Your task to perform on an android device: Go to notification settings Image 0: 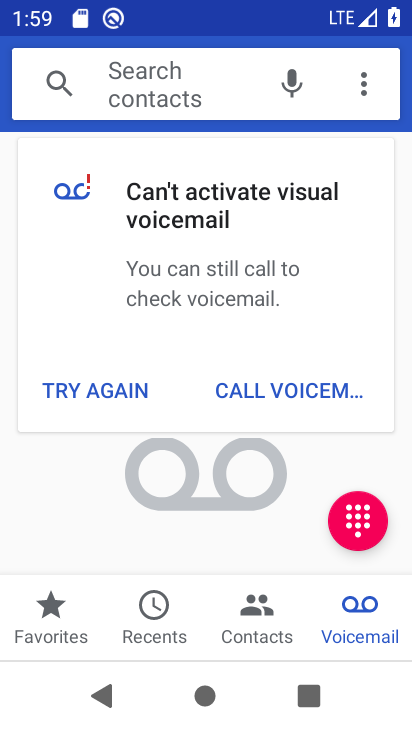
Step 0: press home button
Your task to perform on an android device: Go to notification settings Image 1: 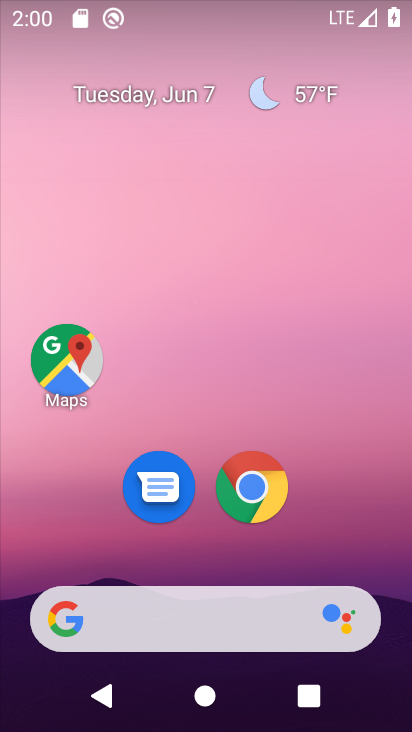
Step 1: drag from (203, 563) to (317, 12)
Your task to perform on an android device: Go to notification settings Image 2: 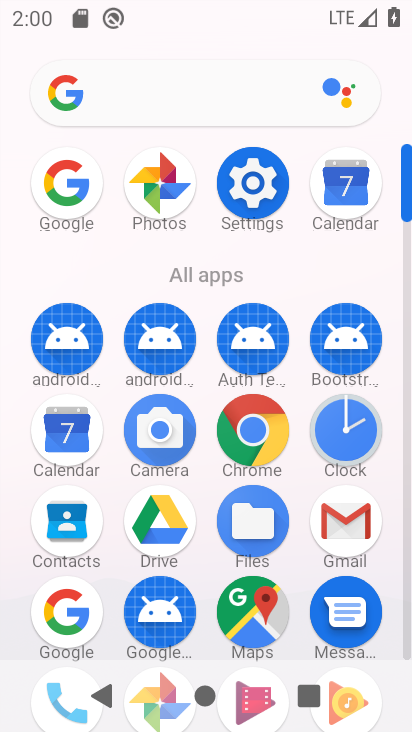
Step 2: click (261, 187)
Your task to perform on an android device: Go to notification settings Image 3: 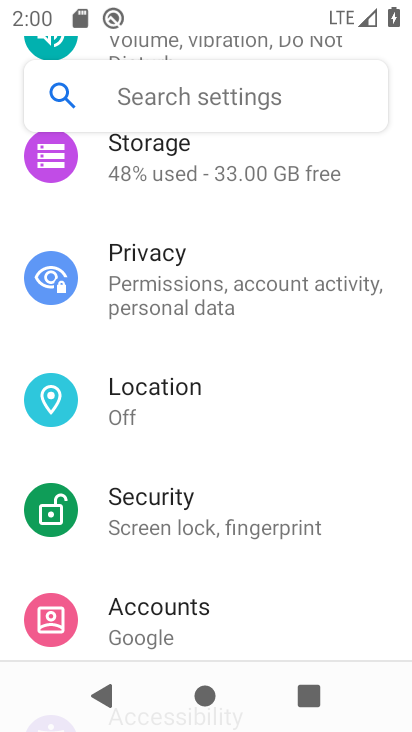
Step 3: drag from (240, 180) to (178, 726)
Your task to perform on an android device: Go to notification settings Image 4: 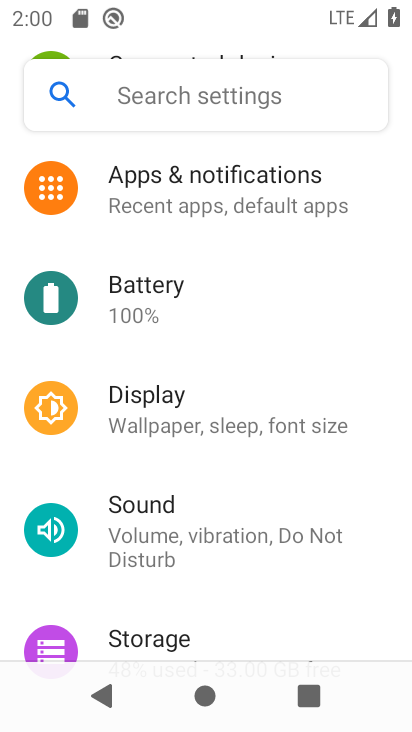
Step 4: click (165, 210)
Your task to perform on an android device: Go to notification settings Image 5: 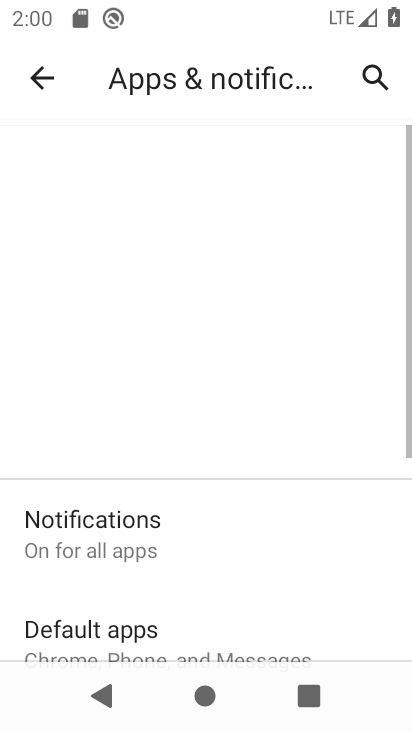
Step 5: click (172, 525)
Your task to perform on an android device: Go to notification settings Image 6: 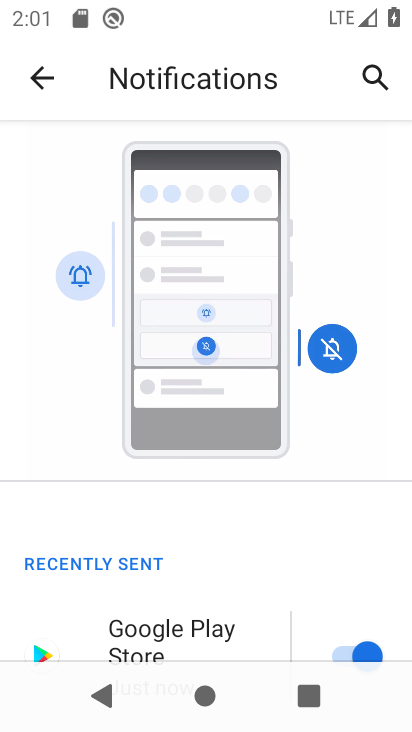
Step 6: drag from (298, 591) to (349, 46)
Your task to perform on an android device: Go to notification settings Image 7: 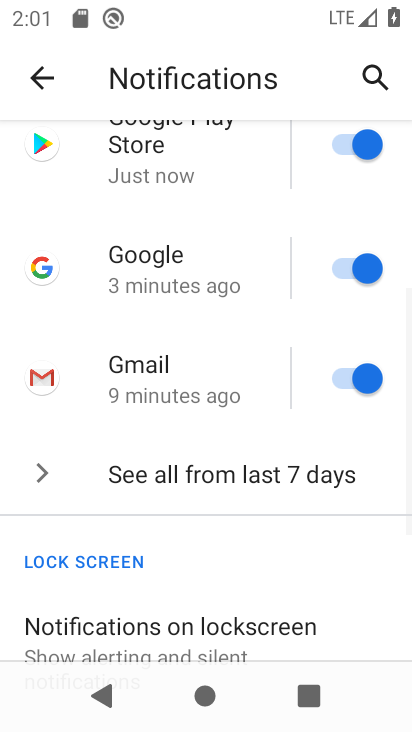
Step 7: click (179, 442)
Your task to perform on an android device: Go to notification settings Image 8: 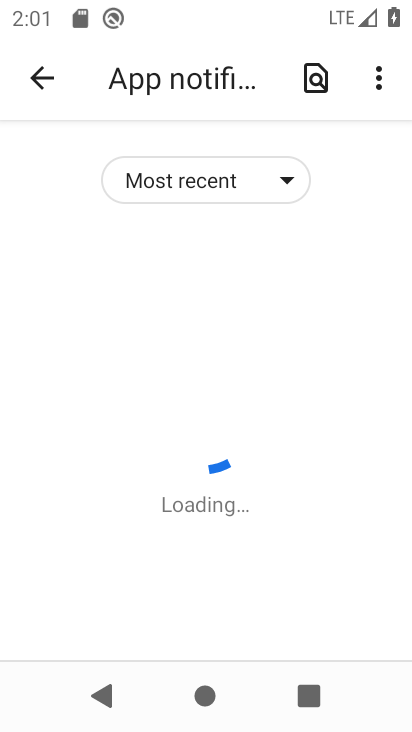
Step 8: click (169, 196)
Your task to perform on an android device: Go to notification settings Image 9: 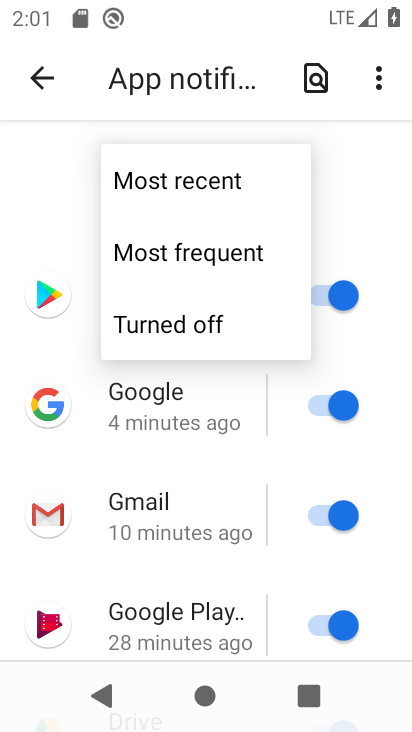
Step 9: click (199, 318)
Your task to perform on an android device: Go to notification settings Image 10: 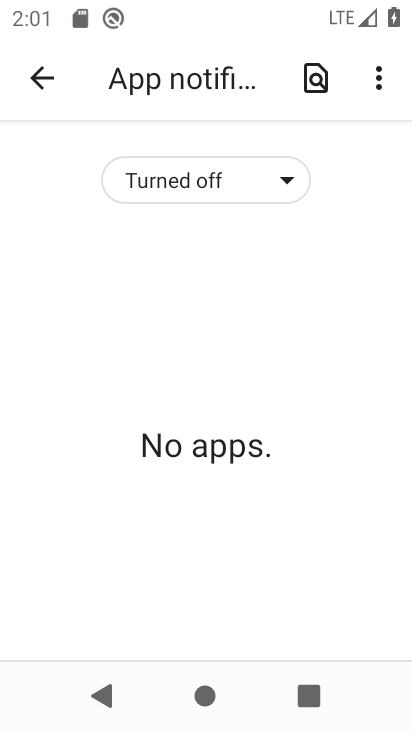
Step 10: task complete